Your task to perform on an android device: turn on sleep mode Image 0: 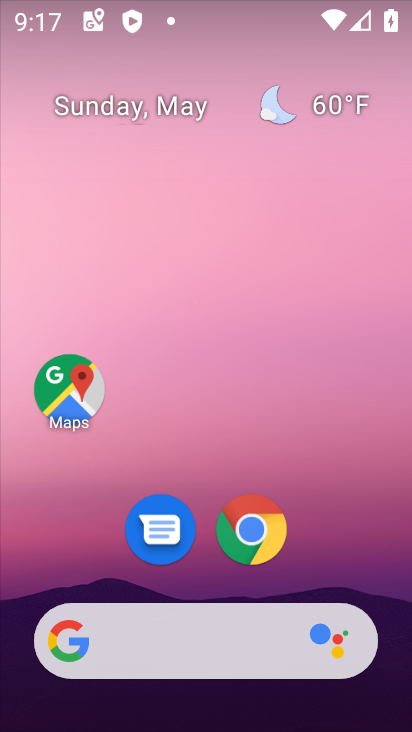
Step 0: drag from (390, 571) to (390, 164)
Your task to perform on an android device: turn on sleep mode Image 1: 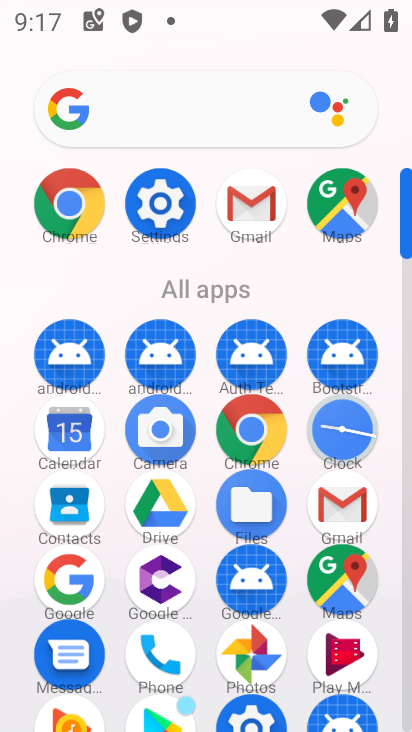
Step 1: click (172, 212)
Your task to perform on an android device: turn on sleep mode Image 2: 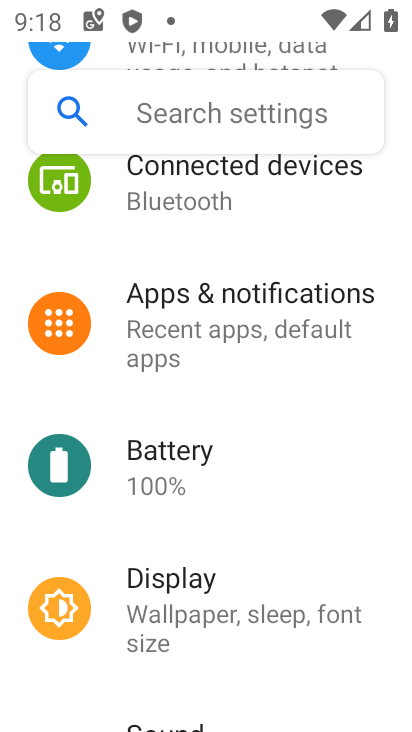
Step 2: drag from (353, 665) to (365, 502)
Your task to perform on an android device: turn on sleep mode Image 3: 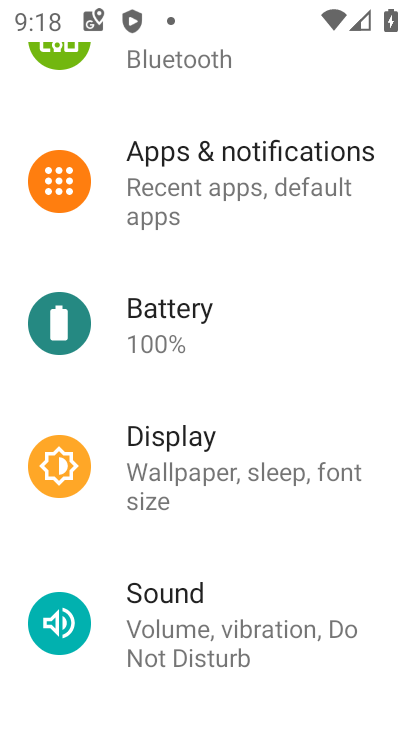
Step 3: drag from (364, 674) to (369, 501)
Your task to perform on an android device: turn on sleep mode Image 4: 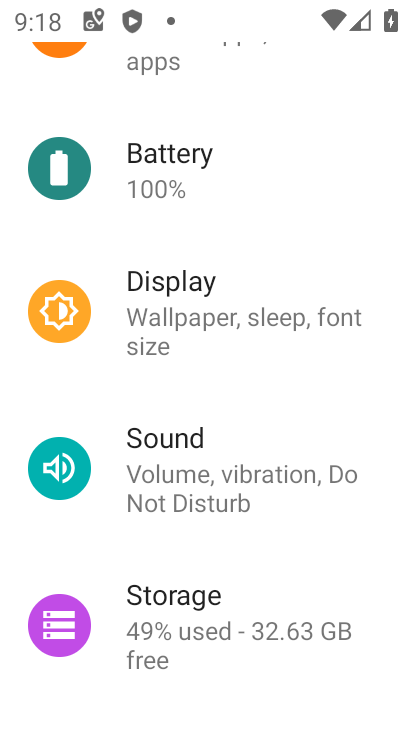
Step 4: drag from (377, 654) to (378, 524)
Your task to perform on an android device: turn on sleep mode Image 5: 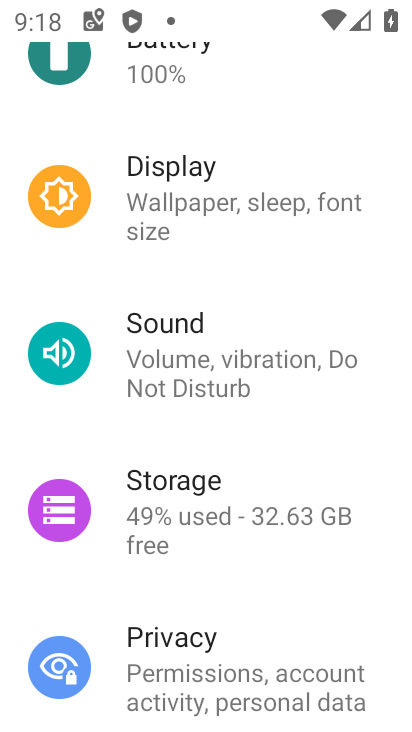
Step 5: drag from (381, 602) to (401, 244)
Your task to perform on an android device: turn on sleep mode Image 6: 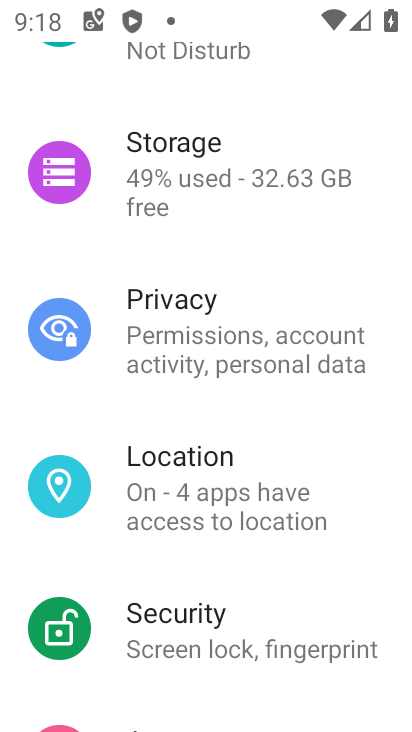
Step 6: drag from (345, 692) to (357, 447)
Your task to perform on an android device: turn on sleep mode Image 7: 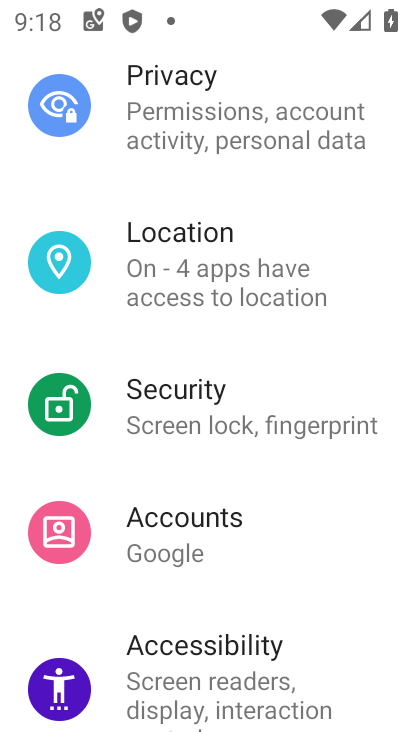
Step 7: drag from (359, 670) to (352, 455)
Your task to perform on an android device: turn on sleep mode Image 8: 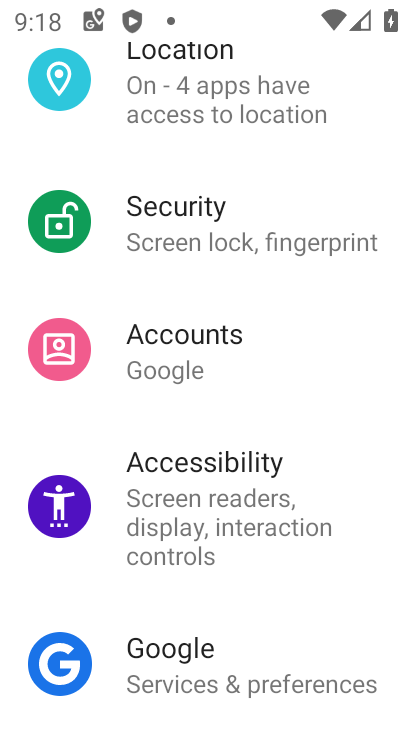
Step 8: drag from (351, 639) to (370, 433)
Your task to perform on an android device: turn on sleep mode Image 9: 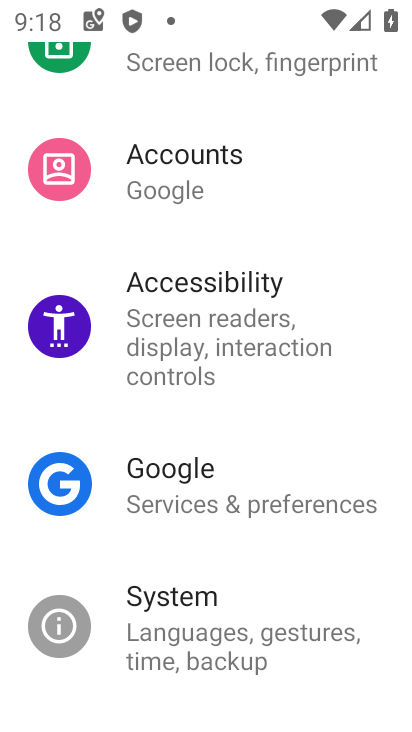
Step 9: drag from (361, 687) to (370, 508)
Your task to perform on an android device: turn on sleep mode Image 10: 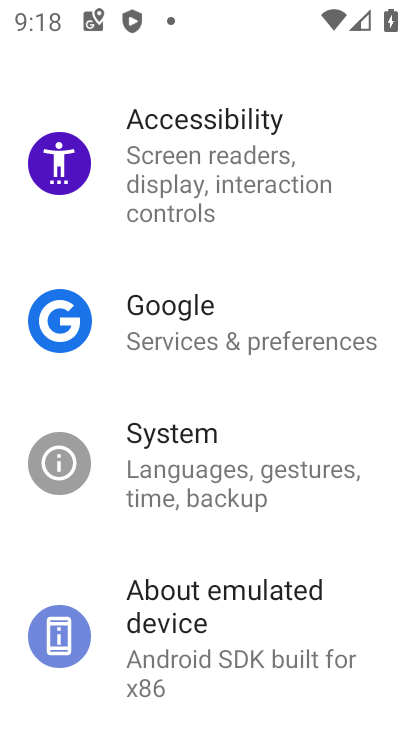
Step 10: drag from (366, 657) to (376, 450)
Your task to perform on an android device: turn on sleep mode Image 11: 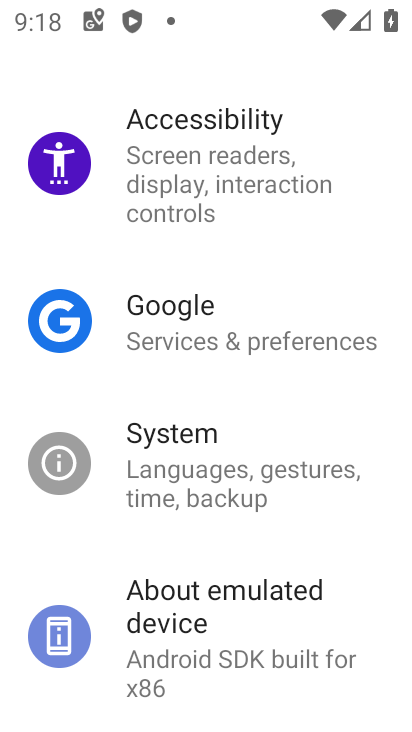
Step 11: drag from (387, 259) to (377, 447)
Your task to perform on an android device: turn on sleep mode Image 12: 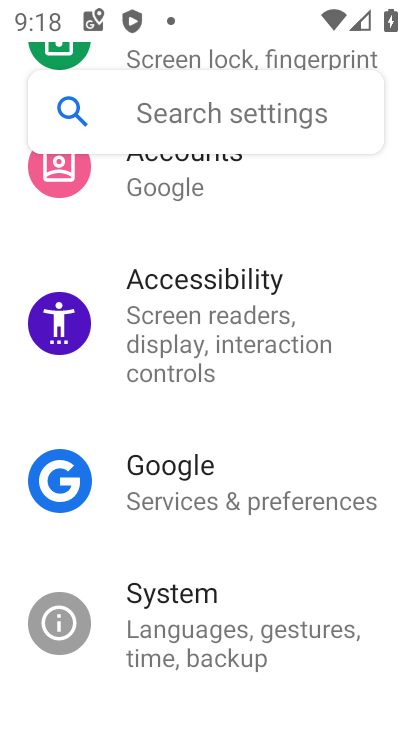
Step 12: drag from (388, 237) to (371, 446)
Your task to perform on an android device: turn on sleep mode Image 13: 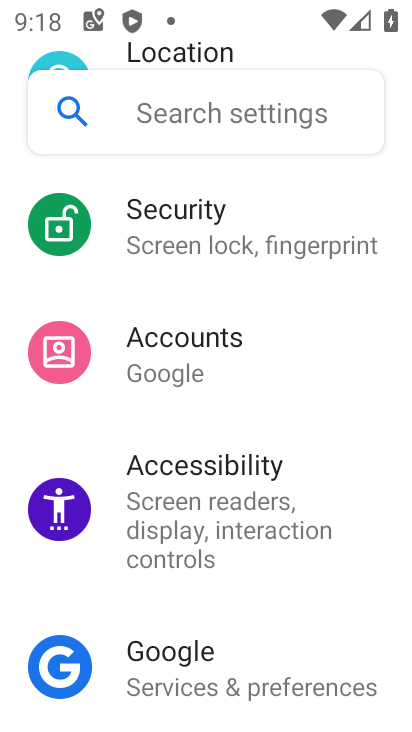
Step 13: drag from (376, 275) to (378, 559)
Your task to perform on an android device: turn on sleep mode Image 14: 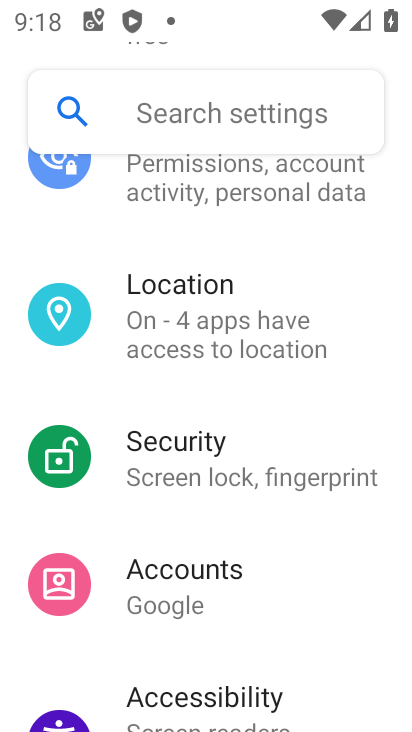
Step 14: drag from (354, 270) to (353, 528)
Your task to perform on an android device: turn on sleep mode Image 15: 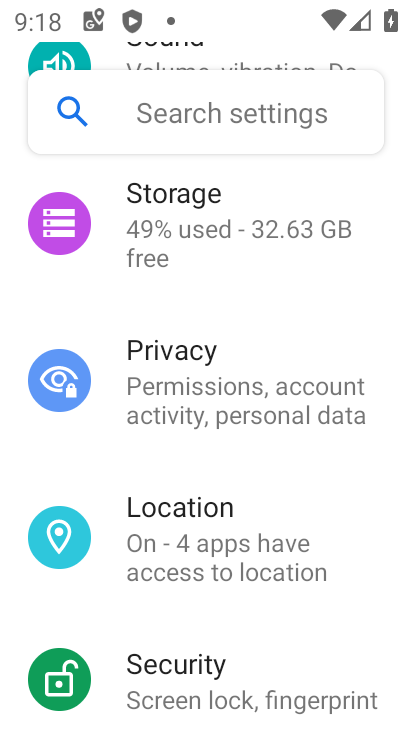
Step 15: drag from (360, 334) to (360, 496)
Your task to perform on an android device: turn on sleep mode Image 16: 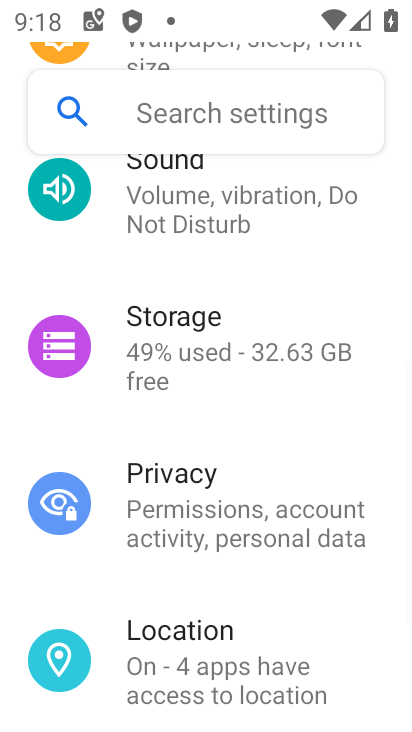
Step 16: drag from (350, 247) to (356, 460)
Your task to perform on an android device: turn on sleep mode Image 17: 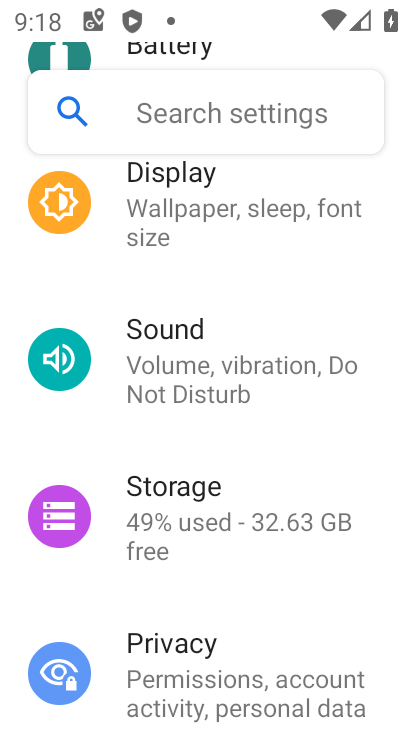
Step 17: drag from (367, 273) to (366, 476)
Your task to perform on an android device: turn on sleep mode Image 18: 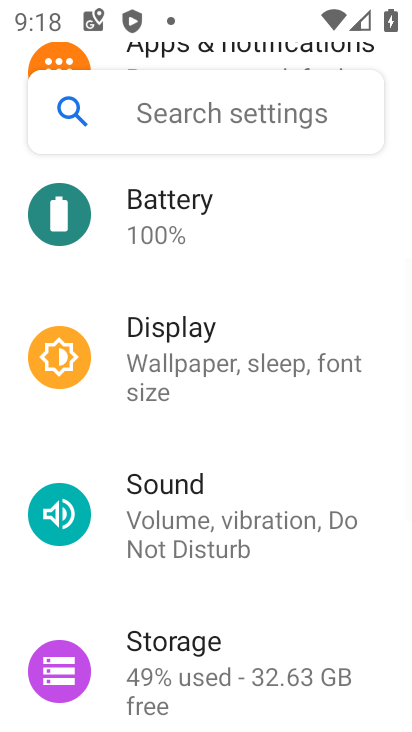
Step 18: click (258, 352)
Your task to perform on an android device: turn on sleep mode Image 19: 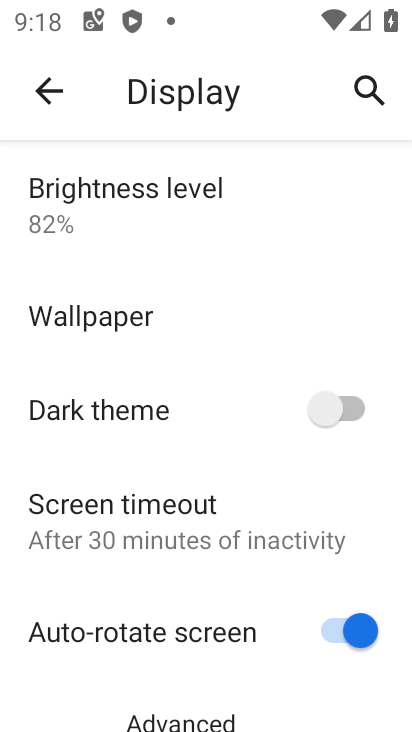
Step 19: drag from (277, 660) to (263, 406)
Your task to perform on an android device: turn on sleep mode Image 20: 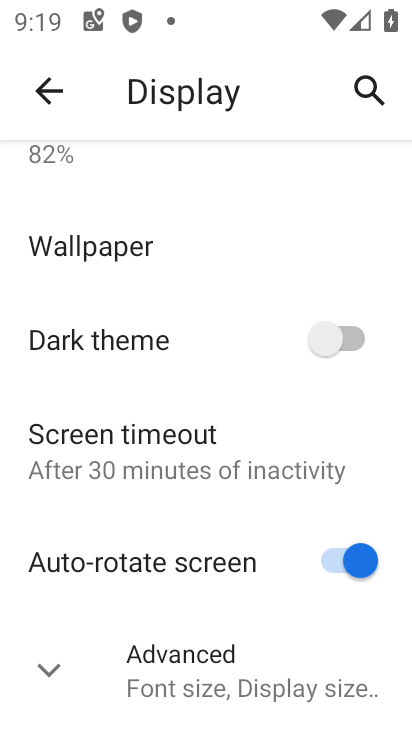
Step 20: click (245, 682)
Your task to perform on an android device: turn on sleep mode Image 21: 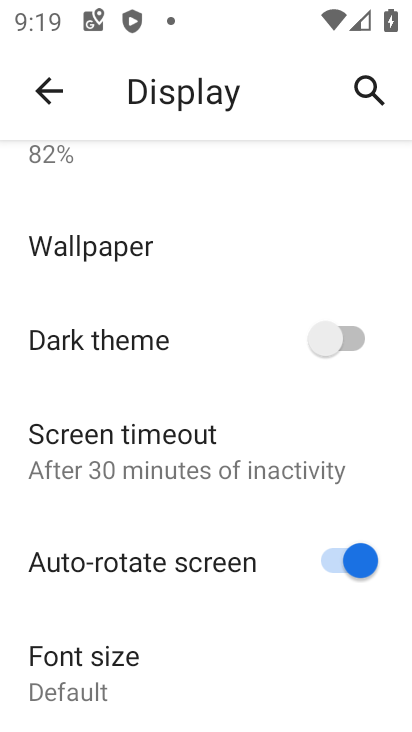
Step 21: task complete